Your task to perform on an android device: create a new album in the google photos Image 0: 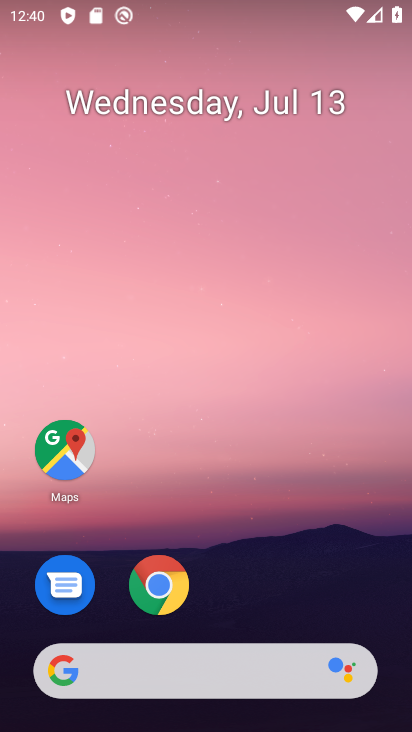
Step 0: drag from (205, 653) to (317, 71)
Your task to perform on an android device: create a new album in the google photos Image 1: 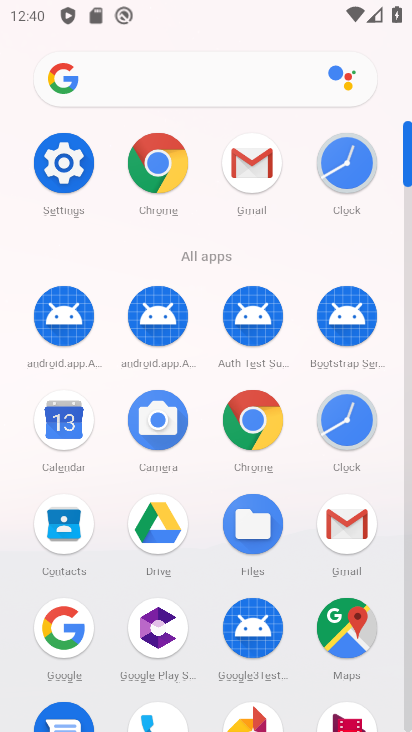
Step 1: drag from (188, 676) to (265, 162)
Your task to perform on an android device: create a new album in the google photos Image 2: 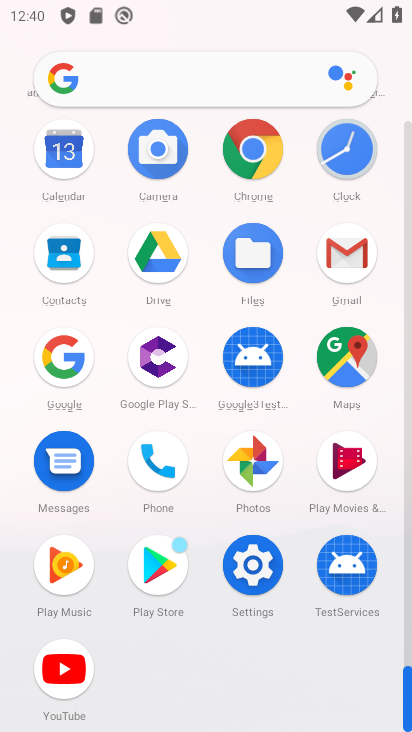
Step 2: click (244, 468)
Your task to perform on an android device: create a new album in the google photos Image 3: 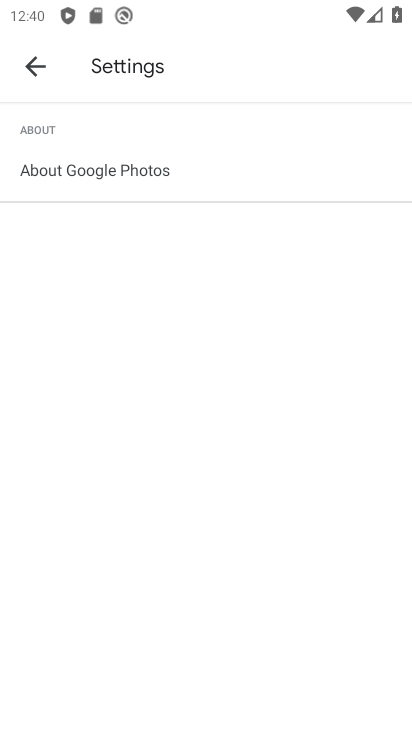
Step 3: click (34, 54)
Your task to perform on an android device: create a new album in the google photos Image 4: 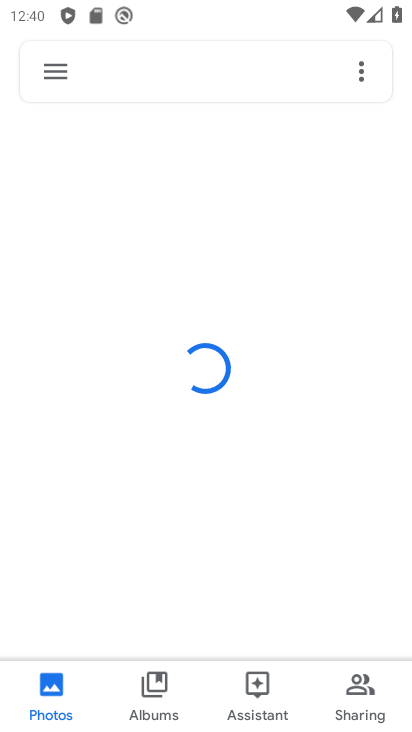
Step 4: click (156, 684)
Your task to perform on an android device: create a new album in the google photos Image 5: 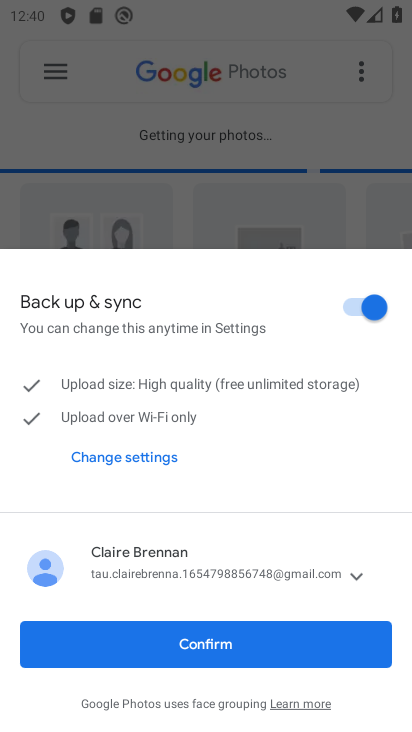
Step 5: click (205, 643)
Your task to perform on an android device: create a new album in the google photos Image 6: 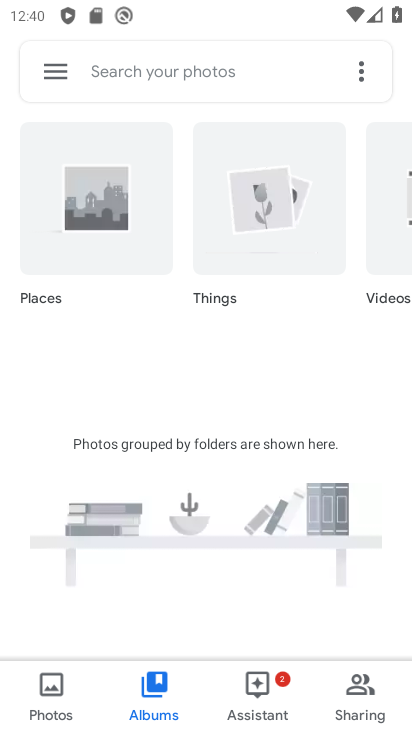
Step 6: task complete